Your task to perform on an android device: turn off improve location accuracy Image 0: 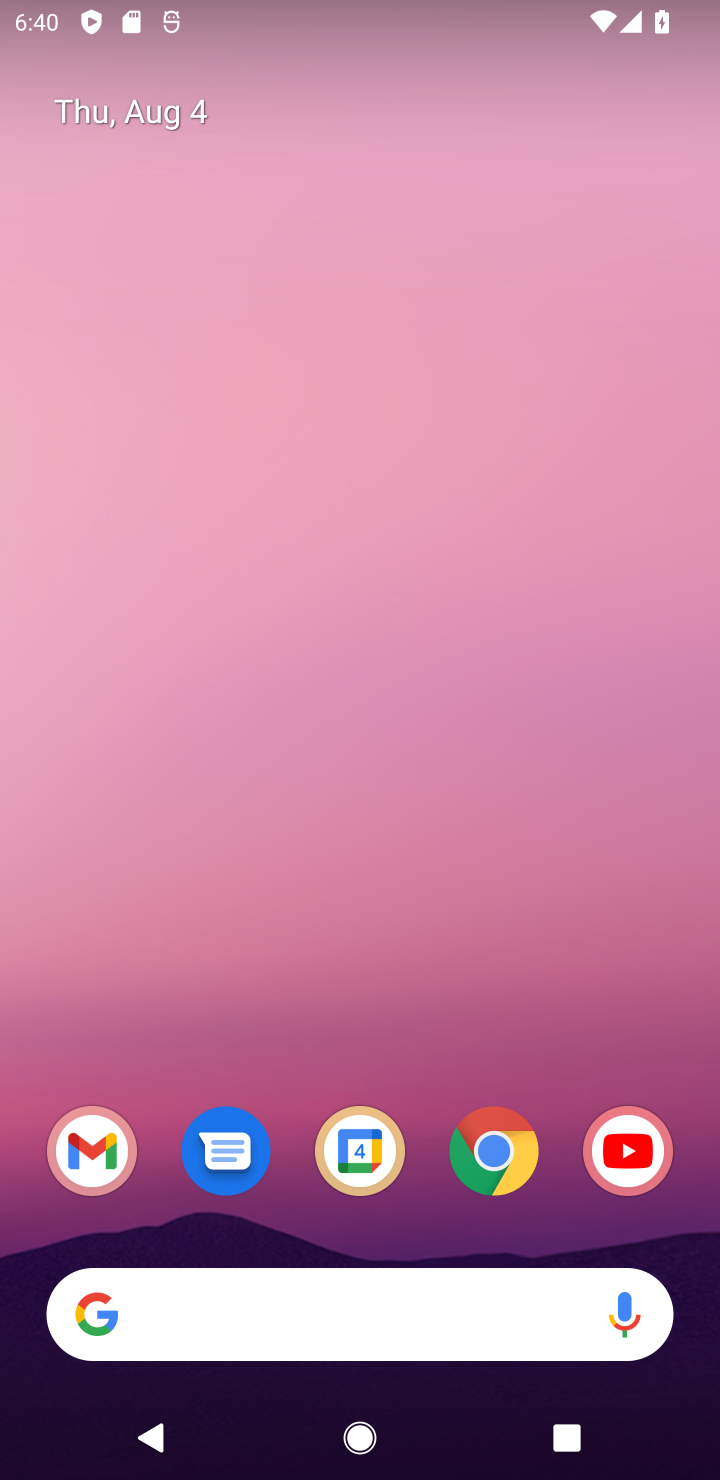
Step 0: drag from (396, 1222) to (396, 470)
Your task to perform on an android device: turn off improve location accuracy Image 1: 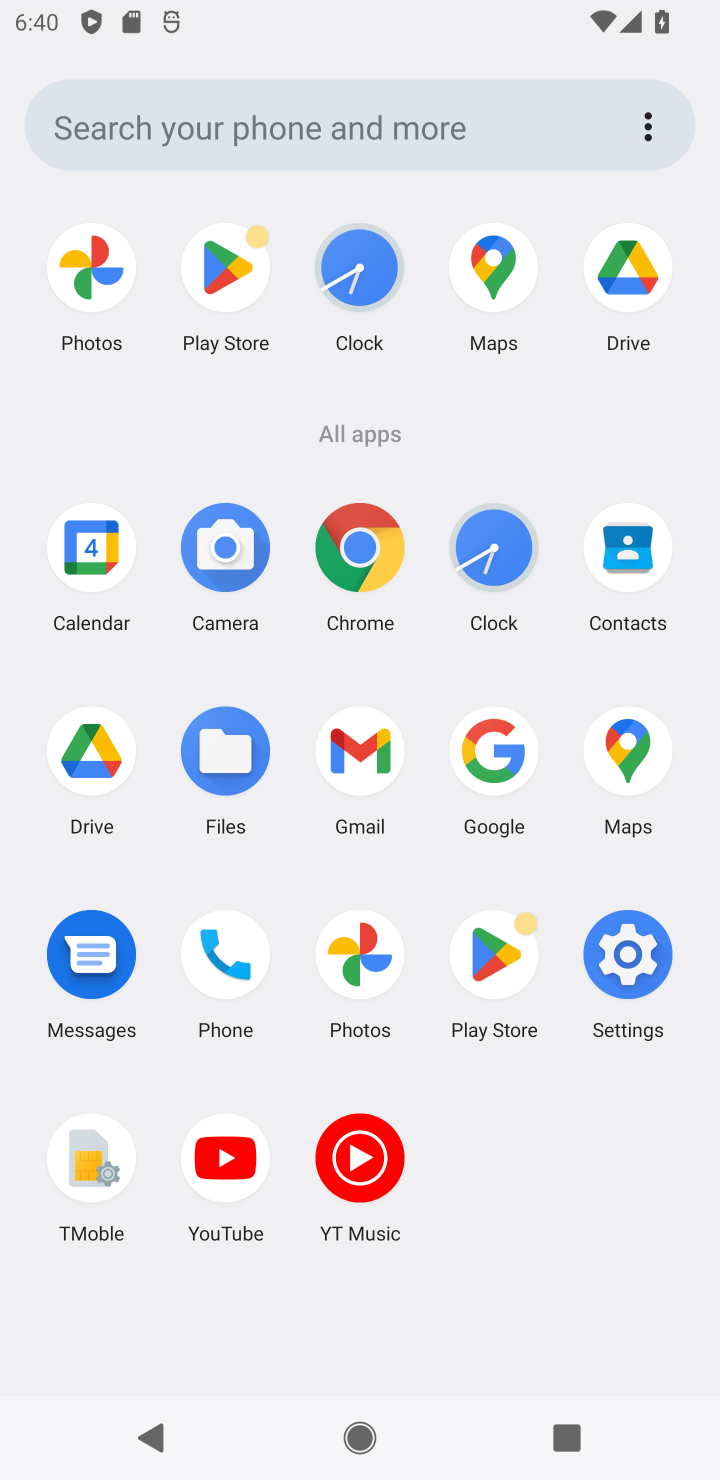
Step 1: click (652, 966)
Your task to perform on an android device: turn off improve location accuracy Image 2: 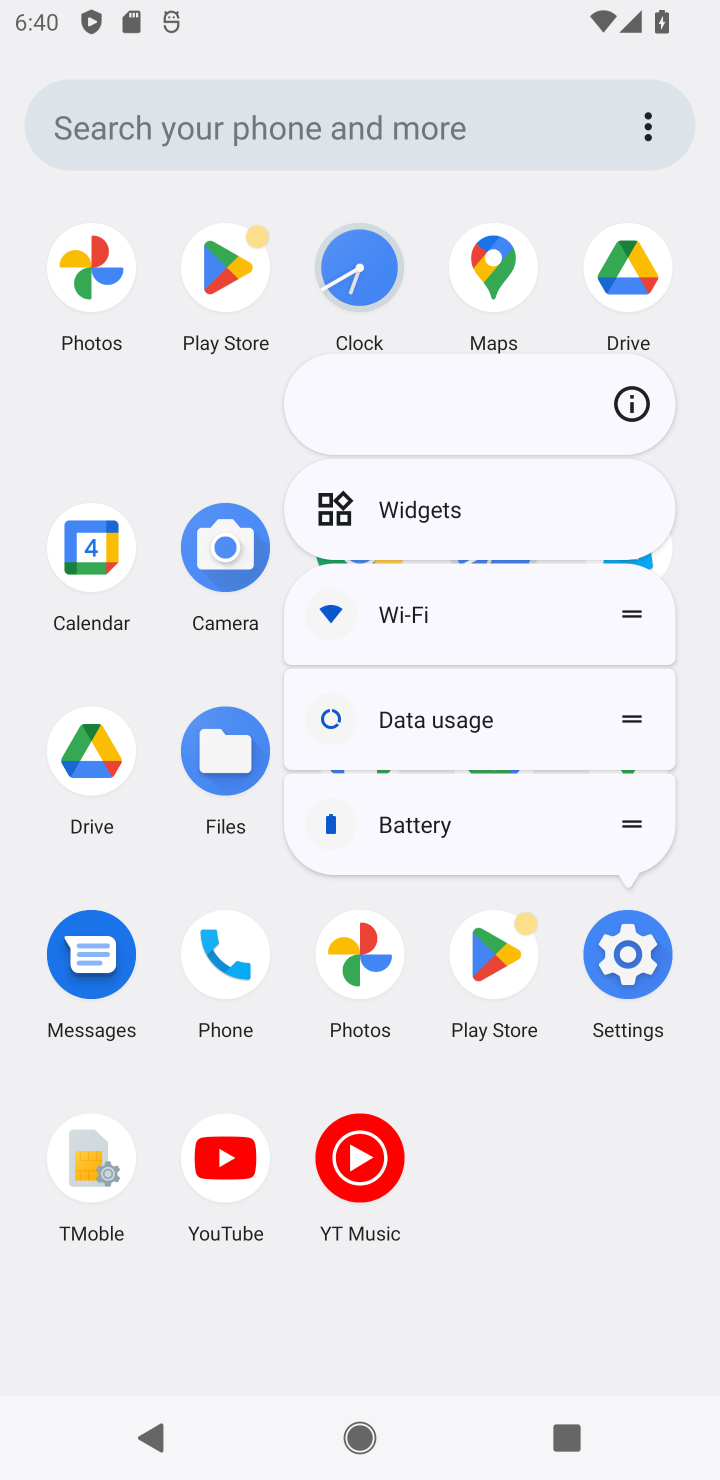
Step 2: click (642, 974)
Your task to perform on an android device: turn off improve location accuracy Image 3: 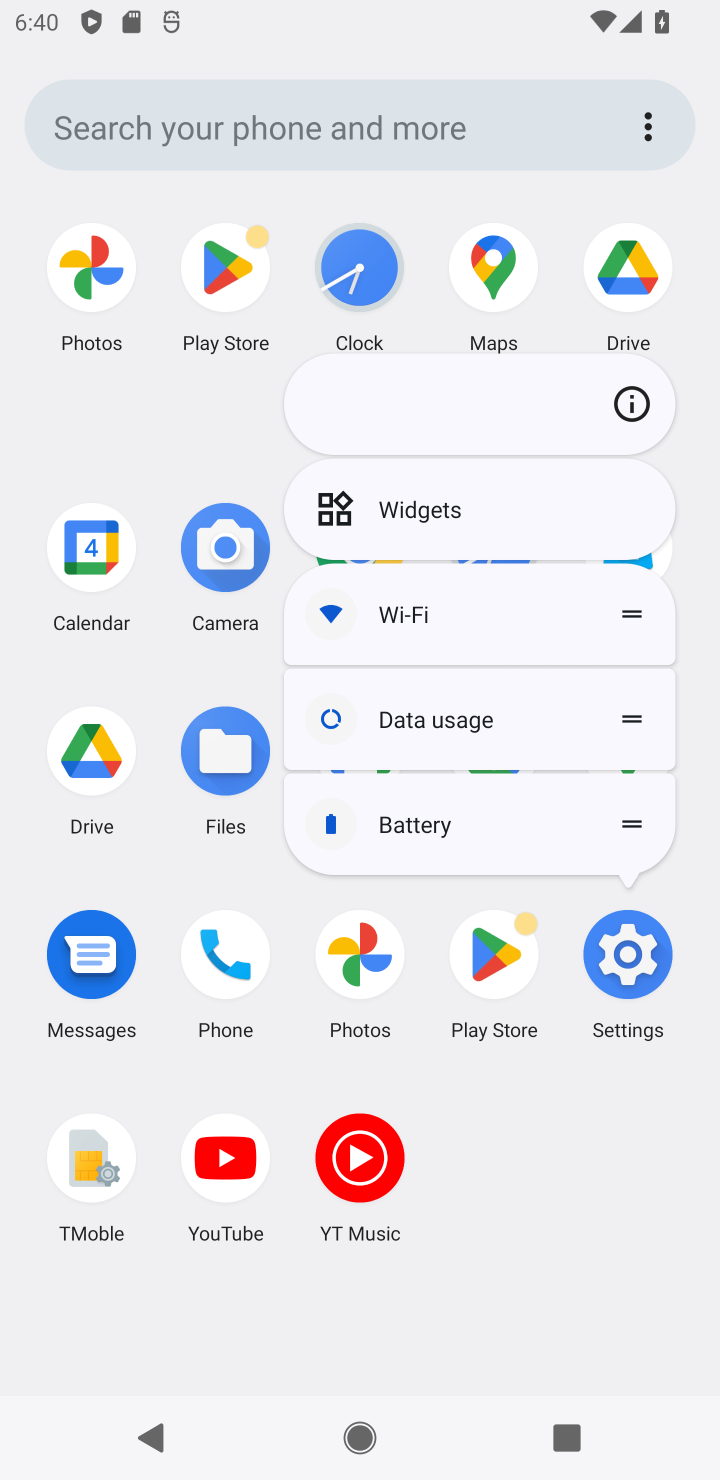
Step 3: click (640, 980)
Your task to perform on an android device: turn off improve location accuracy Image 4: 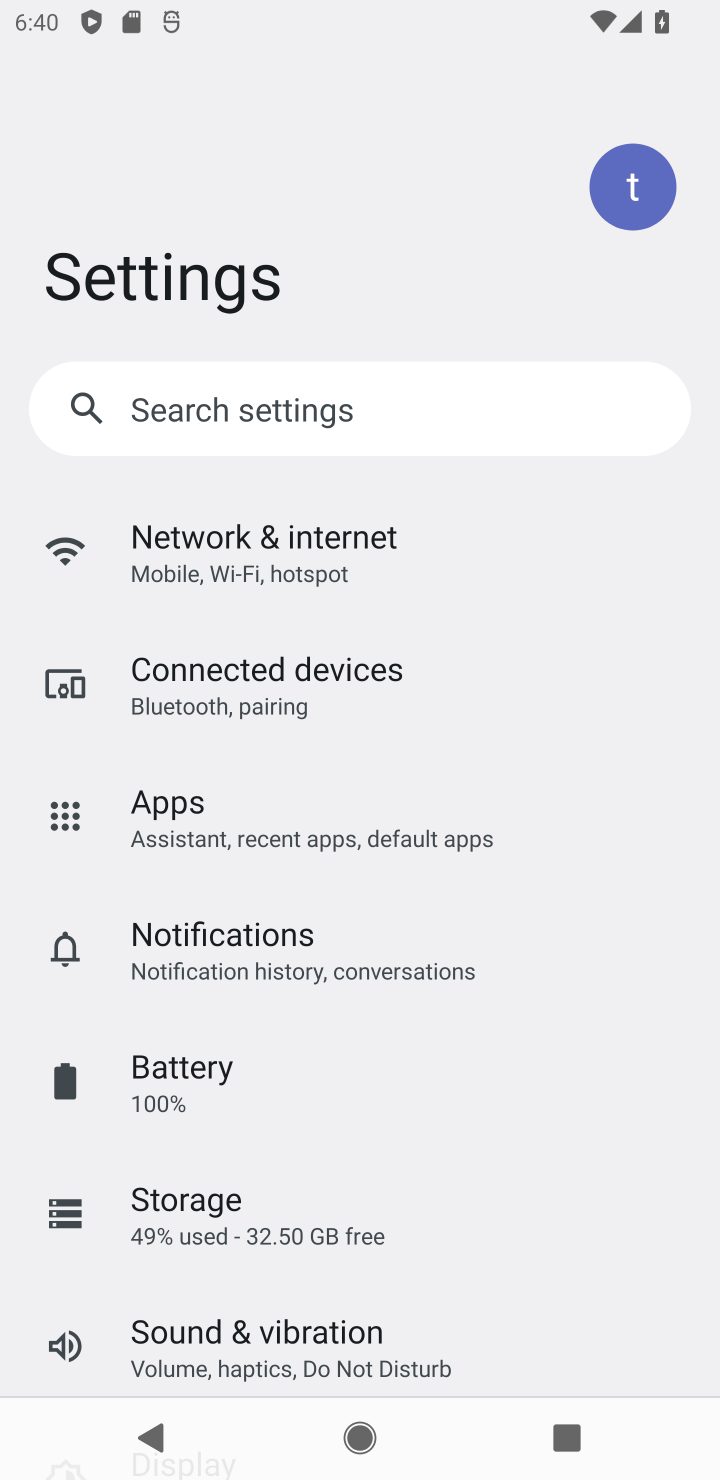
Step 4: drag from (263, 1348) to (321, 764)
Your task to perform on an android device: turn off improve location accuracy Image 5: 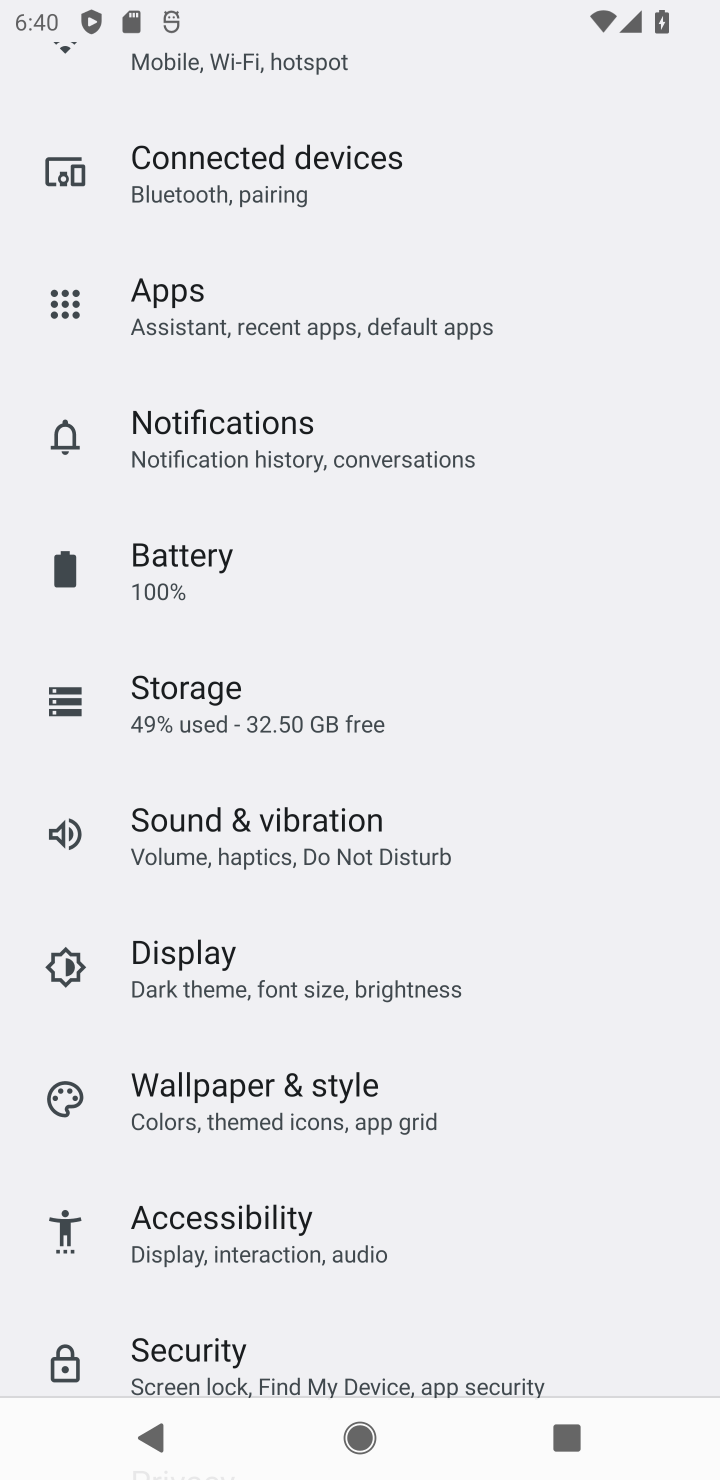
Step 5: drag from (313, 1247) to (373, 600)
Your task to perform on an android device: turn off improve location accuracy Image 6: 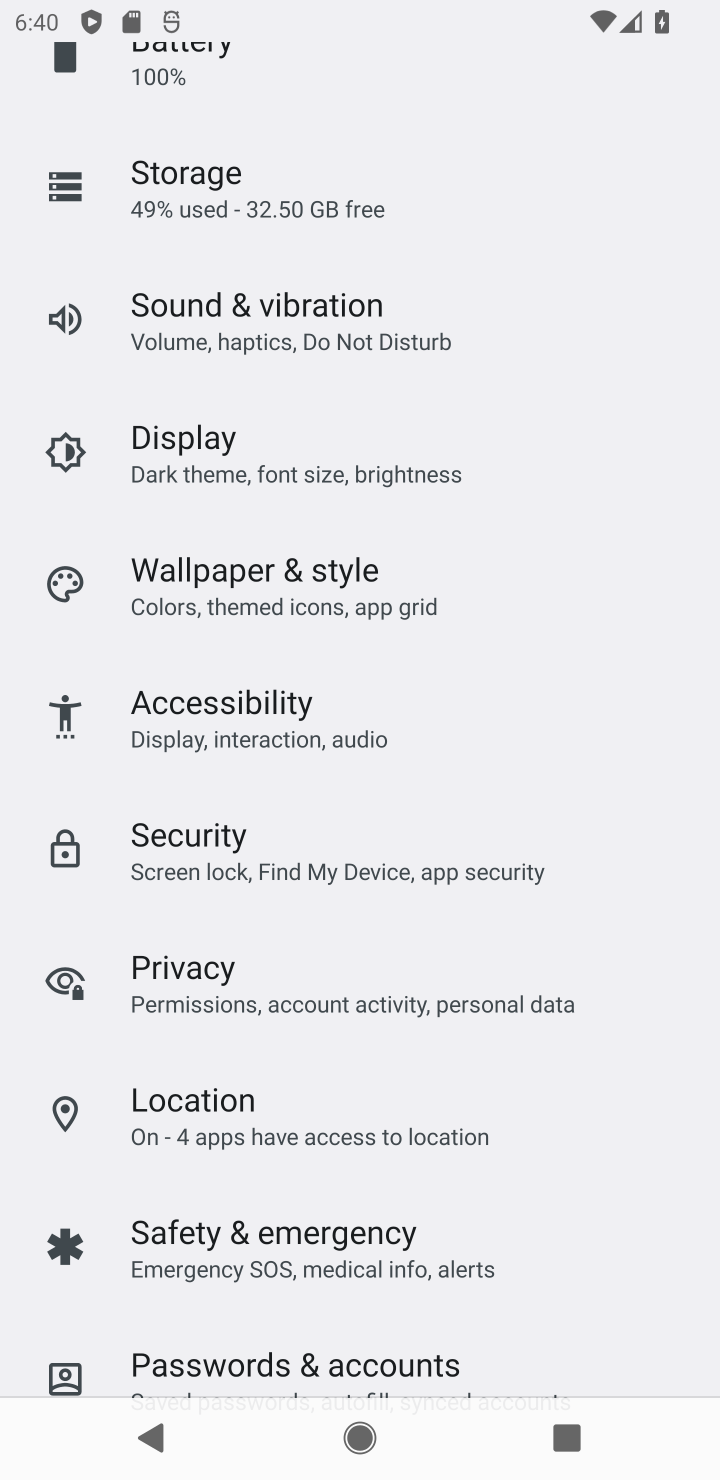
Step 6: click (226, 1118)
Your task to perform on an android device: turn off improve location accuracy Image 7: 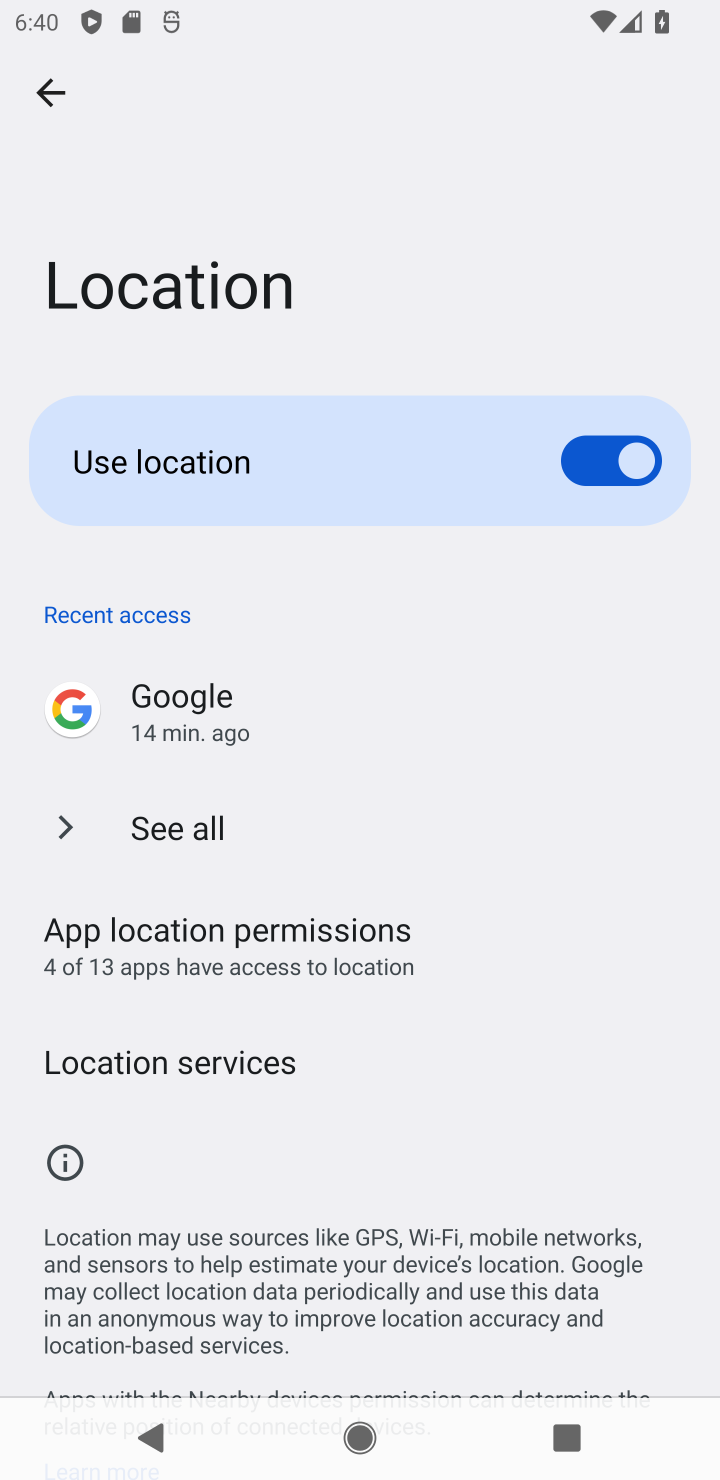
Step 7: click (230, 1061)
Your task to perform on an android device: turn off improve location accuracy Image 8: 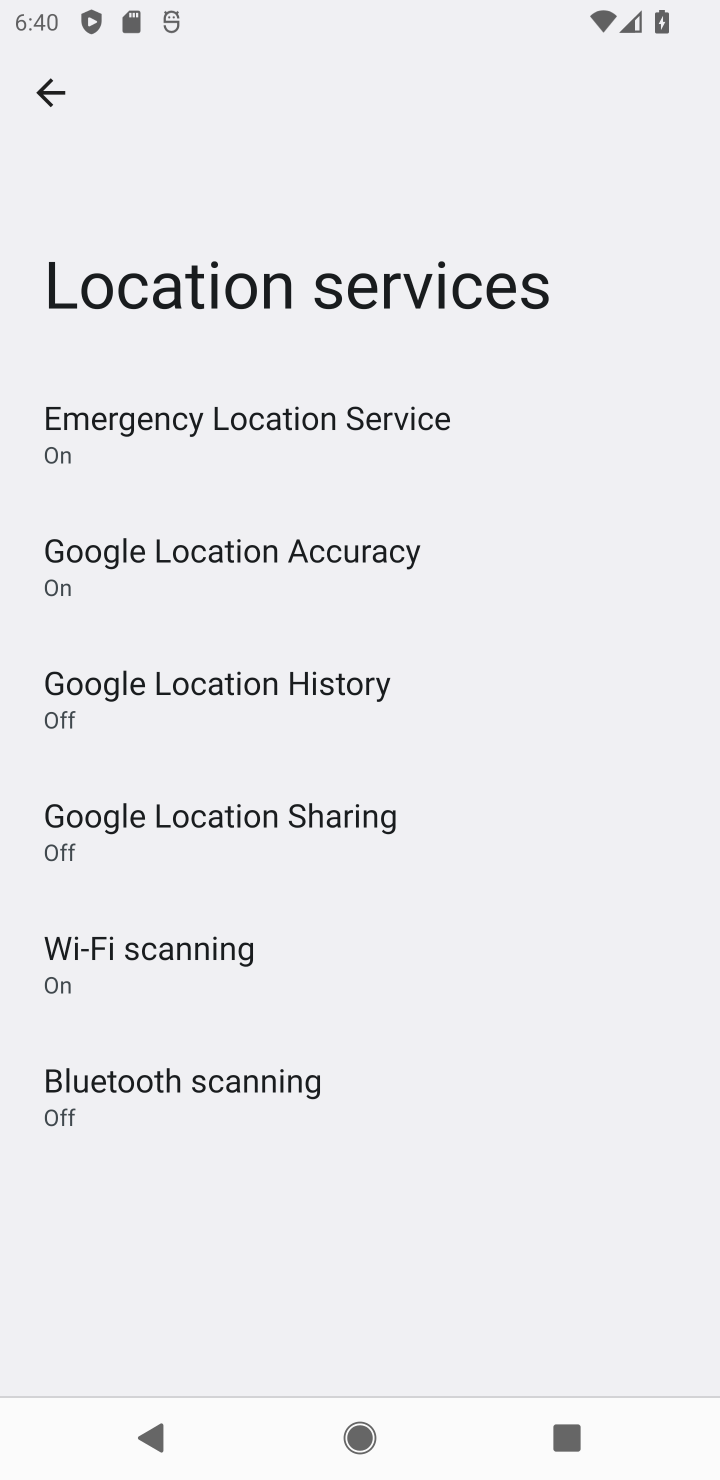
Step 8: click (296, 548)
Your task to perform on an android device: turn off improve location accuracy Image 9: 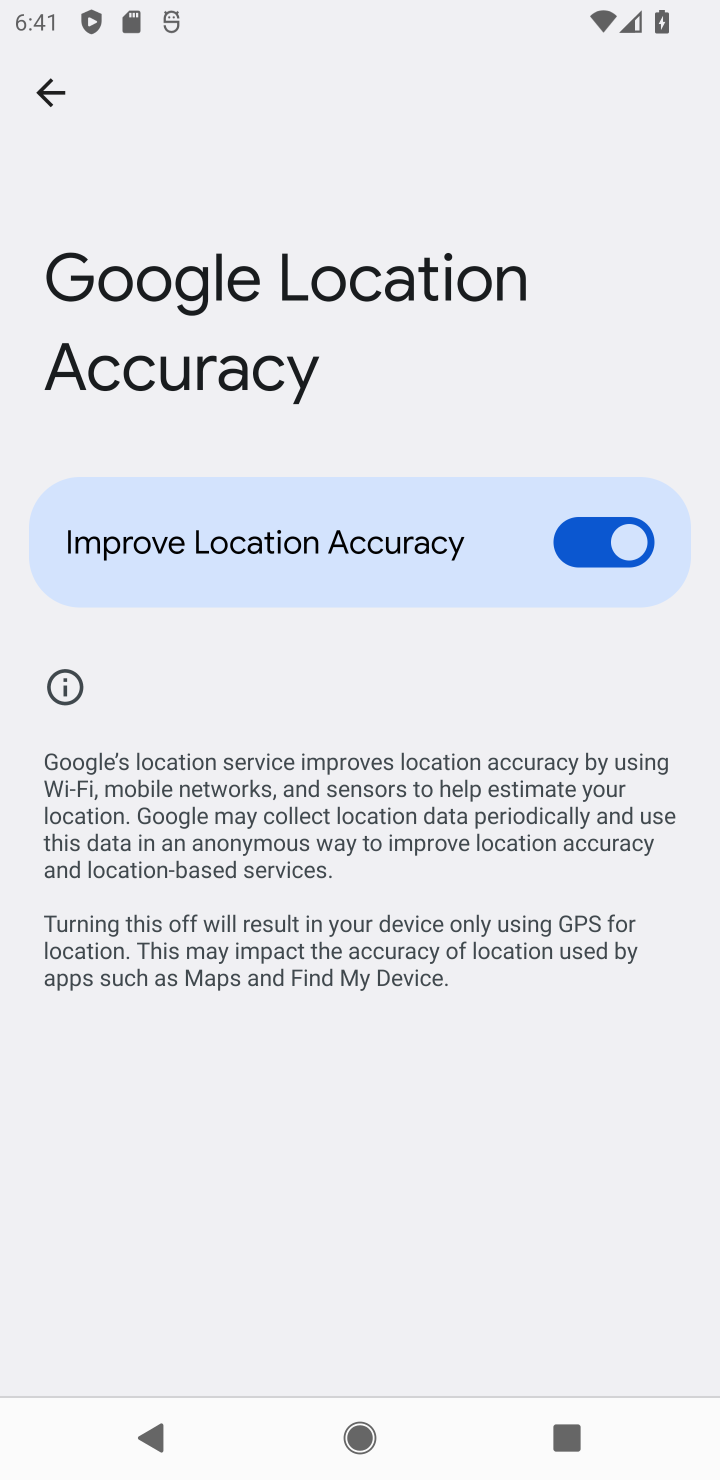
Step 9: click (554, 542)
Your task to perform on an android device: turn off improve location accuracy Image 10: 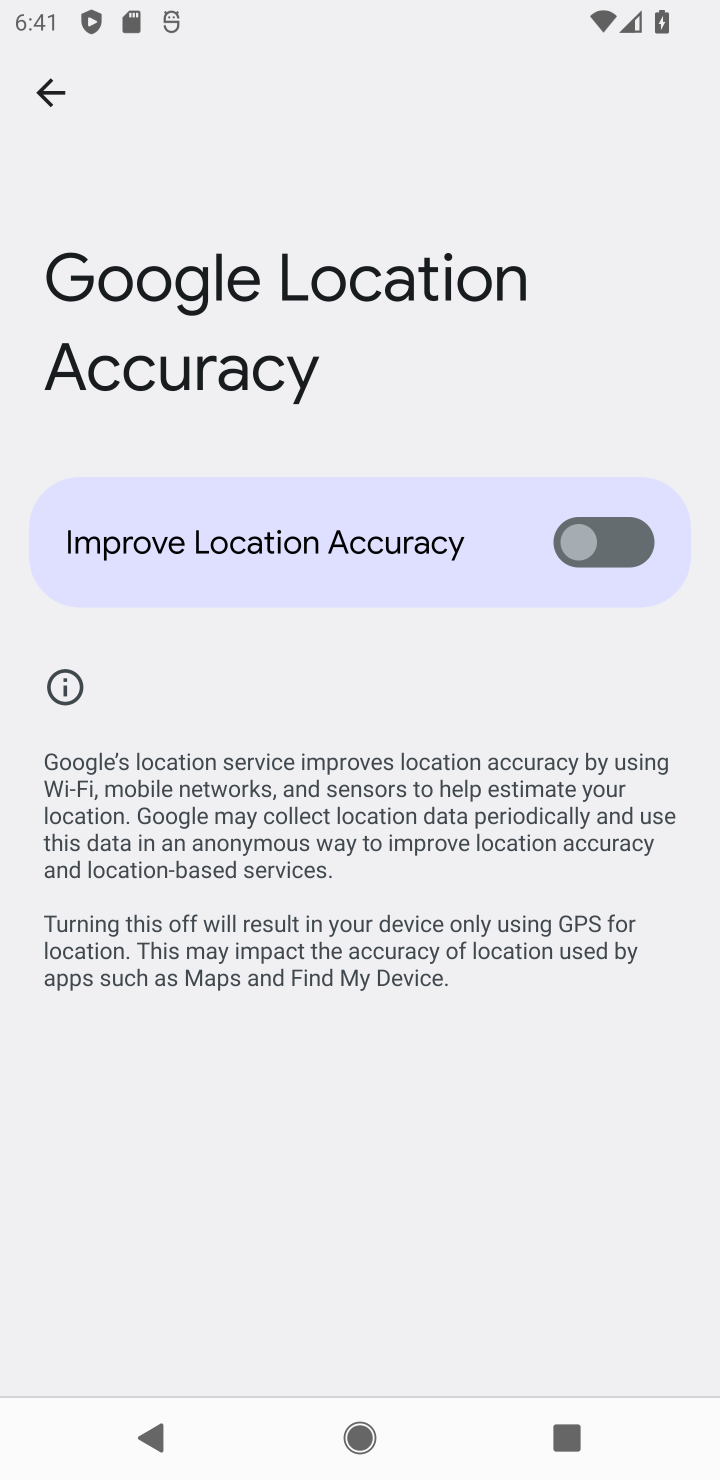
Step 10: task complete